Your task to perform on an android device: Go to Google Image 0: 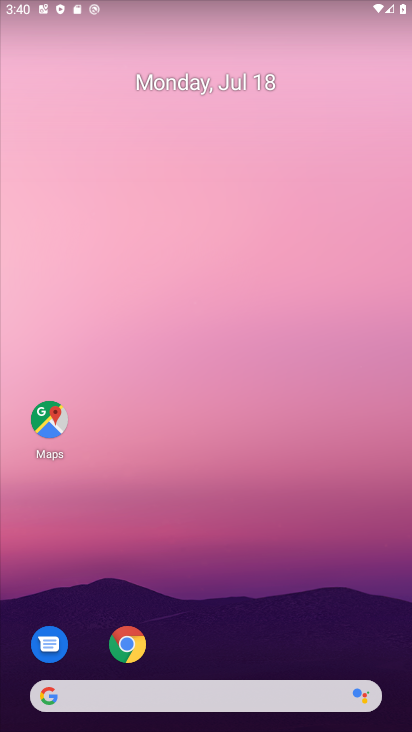
Step 0: click (127, 650)
Your task to perform on an android device: Go to Google Image 1: 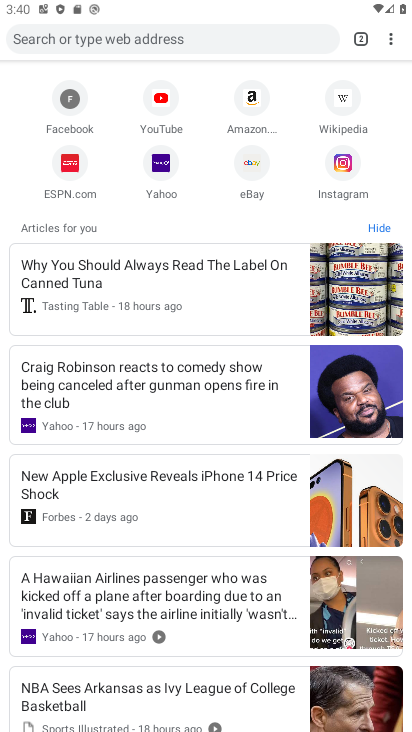
Step 1: task complete